Your task to perform on an android device: Search for amazon basics triple a on walmart, select the first entry, and add it to the cart. Image 0: 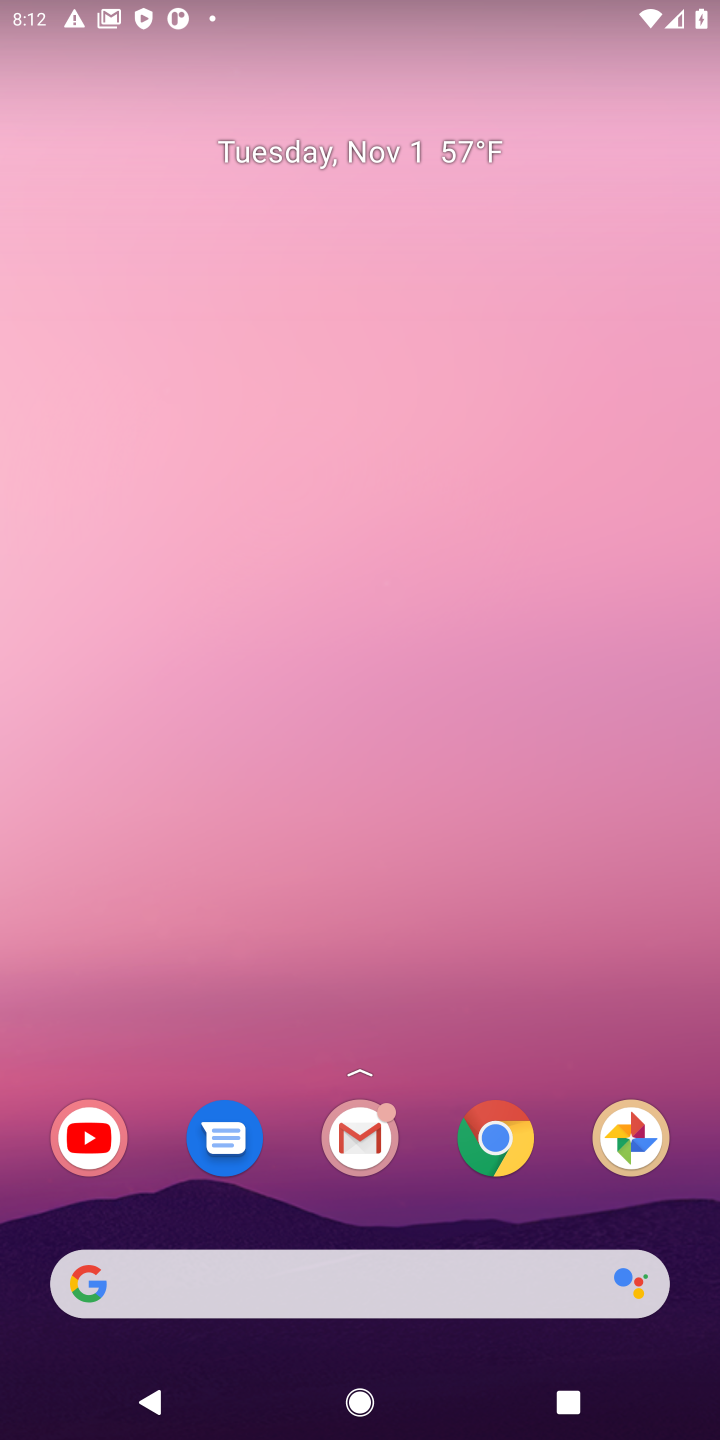
Step 0: click (504, 1133)
Your task to perform on an android device: Search for amazon basics triple a on walmart, select the first entry, and add it to the cart. Image 1: 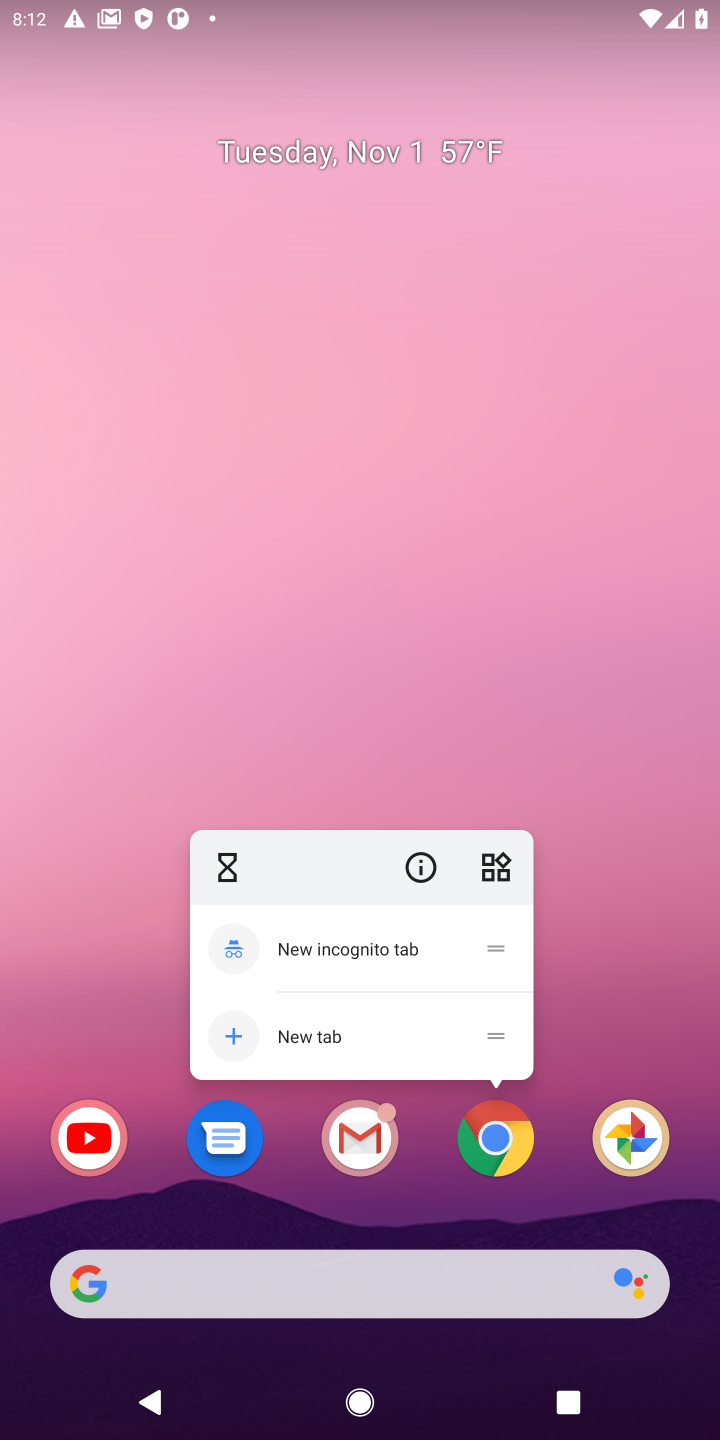
Step 1: click (506, 1135)
Your task to perform on an android device: Search for amazon basics triple a on walmart, select the first entry, and add it to the cart. Image 2: 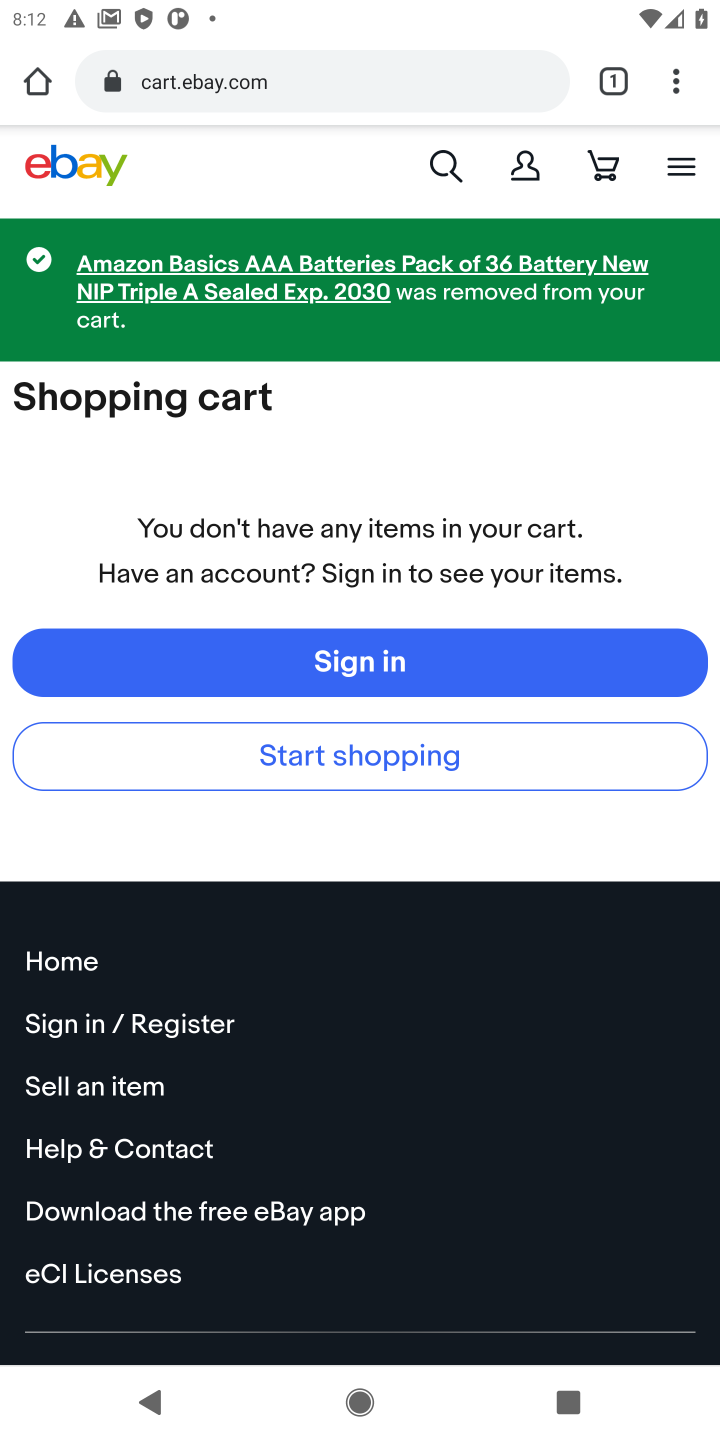
Step 2: click (272, 71)
Your task to perform on an android device: Search for amazon basics triple a on walmart, select the first entry, and add it to the cart. Image 3: 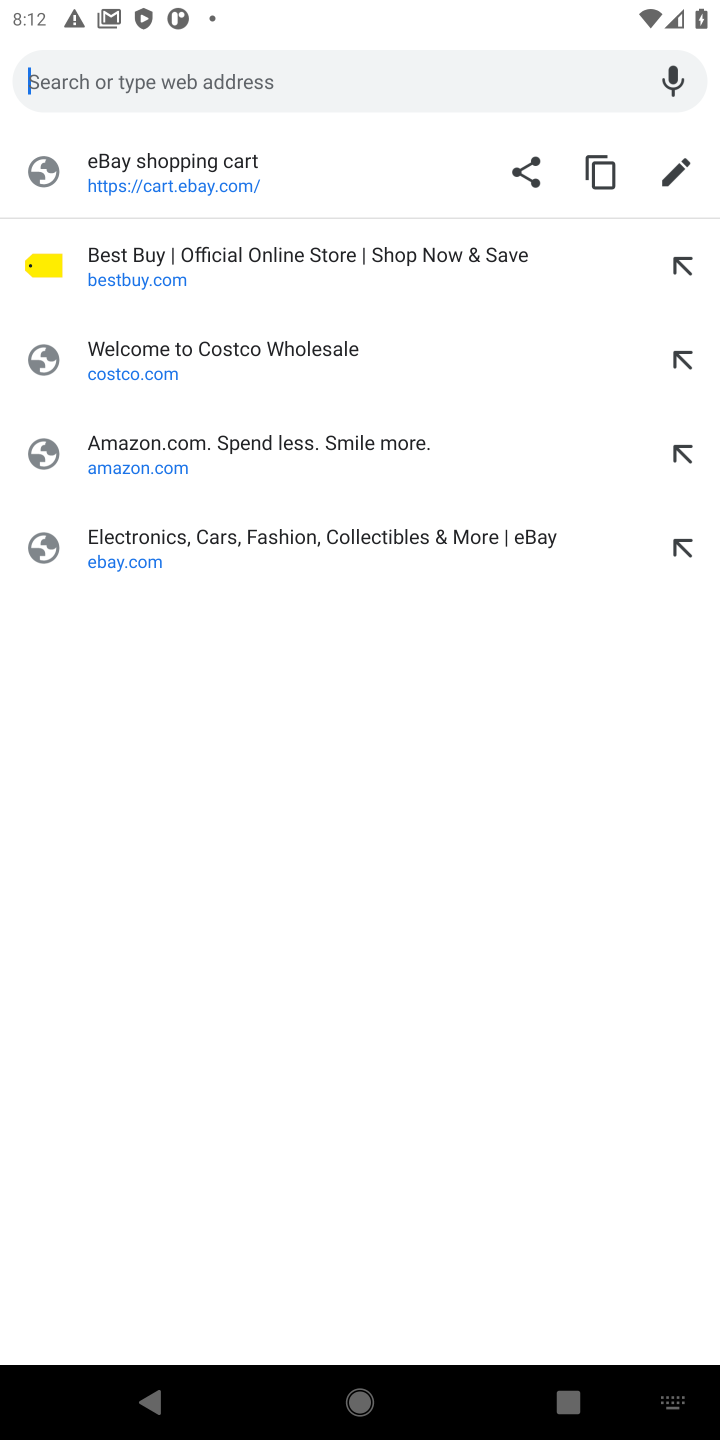
Step 3: type "walmart.com"
Your task to perform on an android device: Search for amazon basics triple a on walmart, select the first entry, and add it to the cart. Image 4: 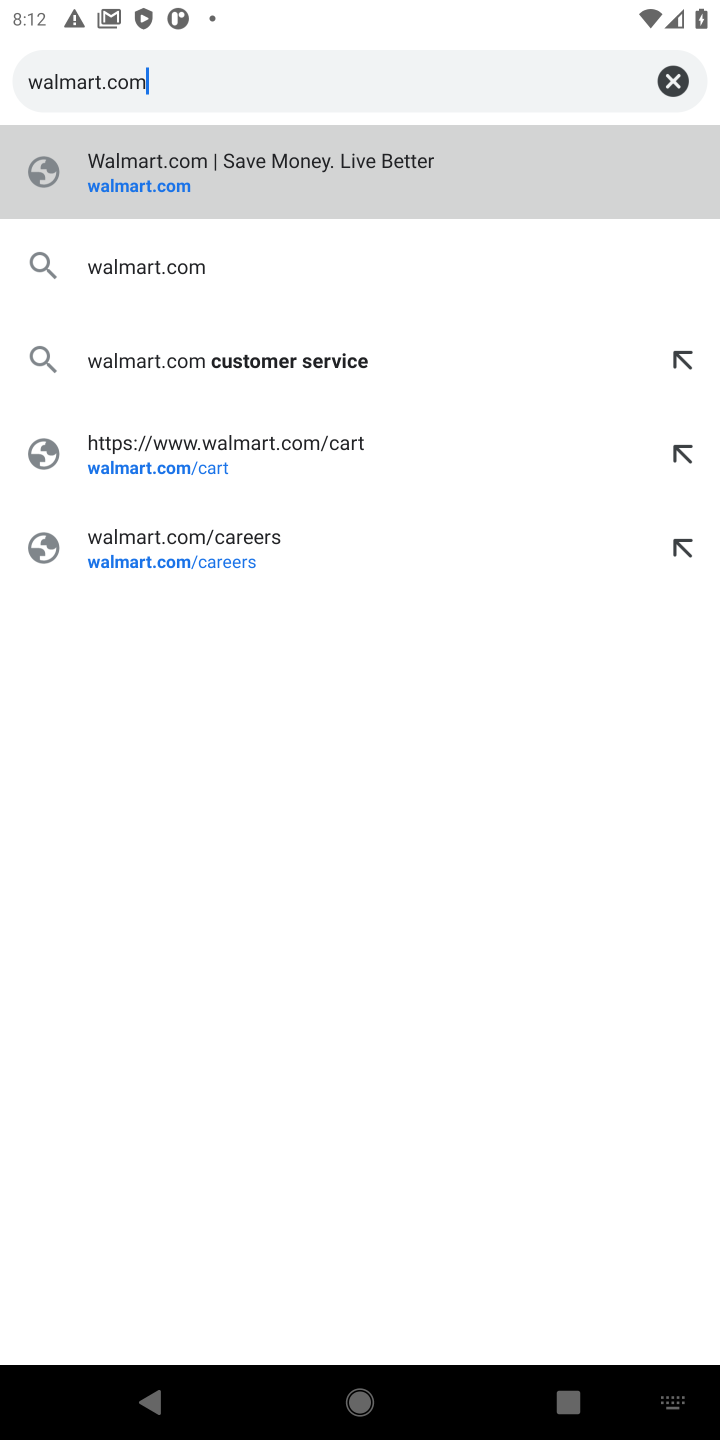
Step 4: click (142, 207)
Your task to perform on an android device: Search for amazon basics triple a on walmart, select the first entry, and add it to the cart. Image 5: 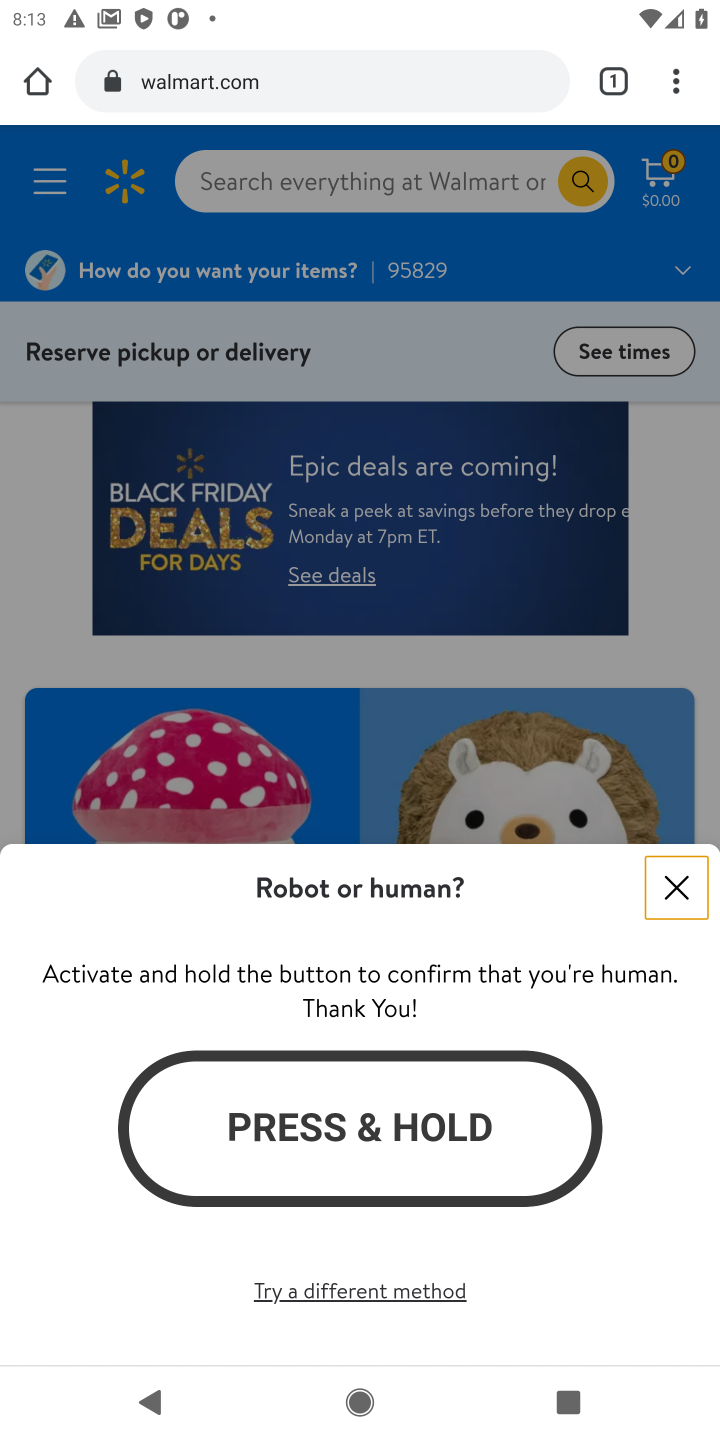
Step 5: click (371, 183)
Your task to perform on an android device: Search for amazon basics triple a on walmart, select the first entry, and add it to the cart. Image 6: 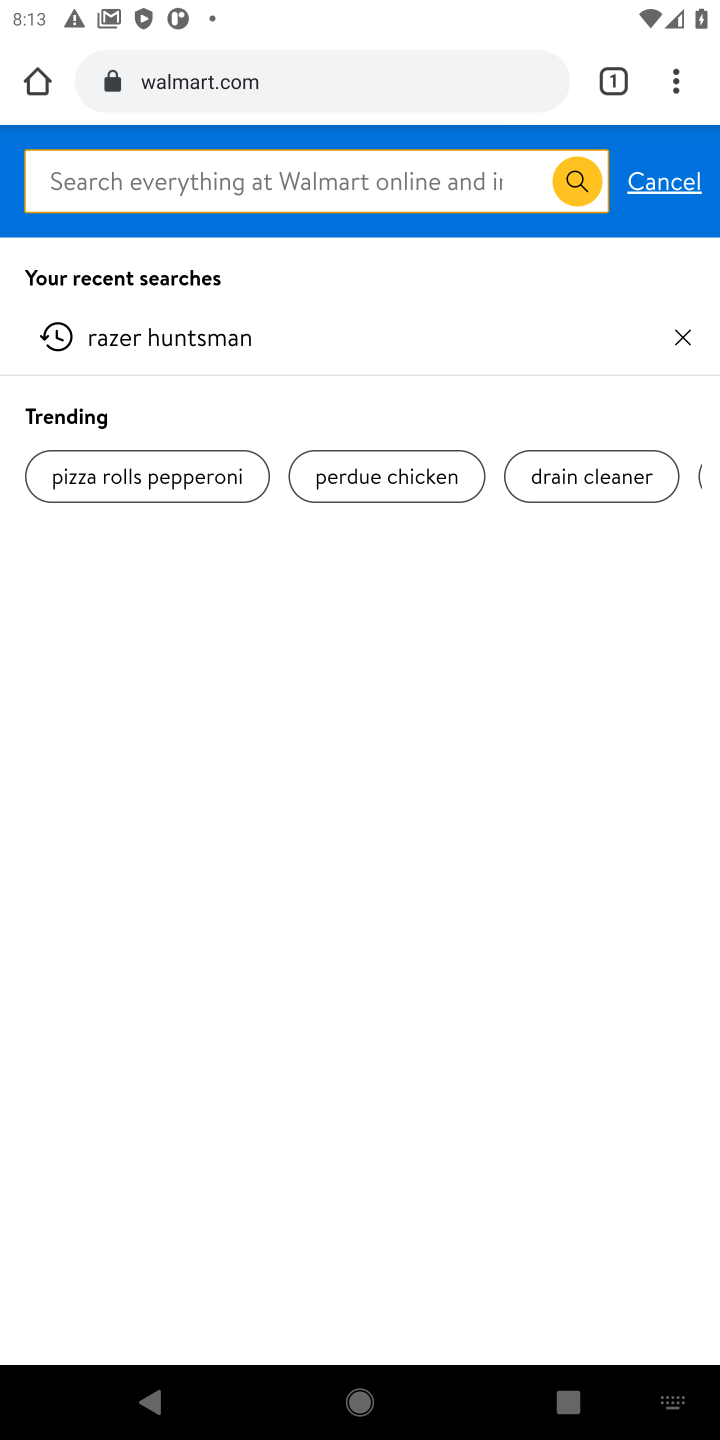
Step 6: type "amazon basics triple a"
Your task to perform on an android device: Search for amazon basics triple a on walmart, select the first entry, and add it to the cart. Image 7: 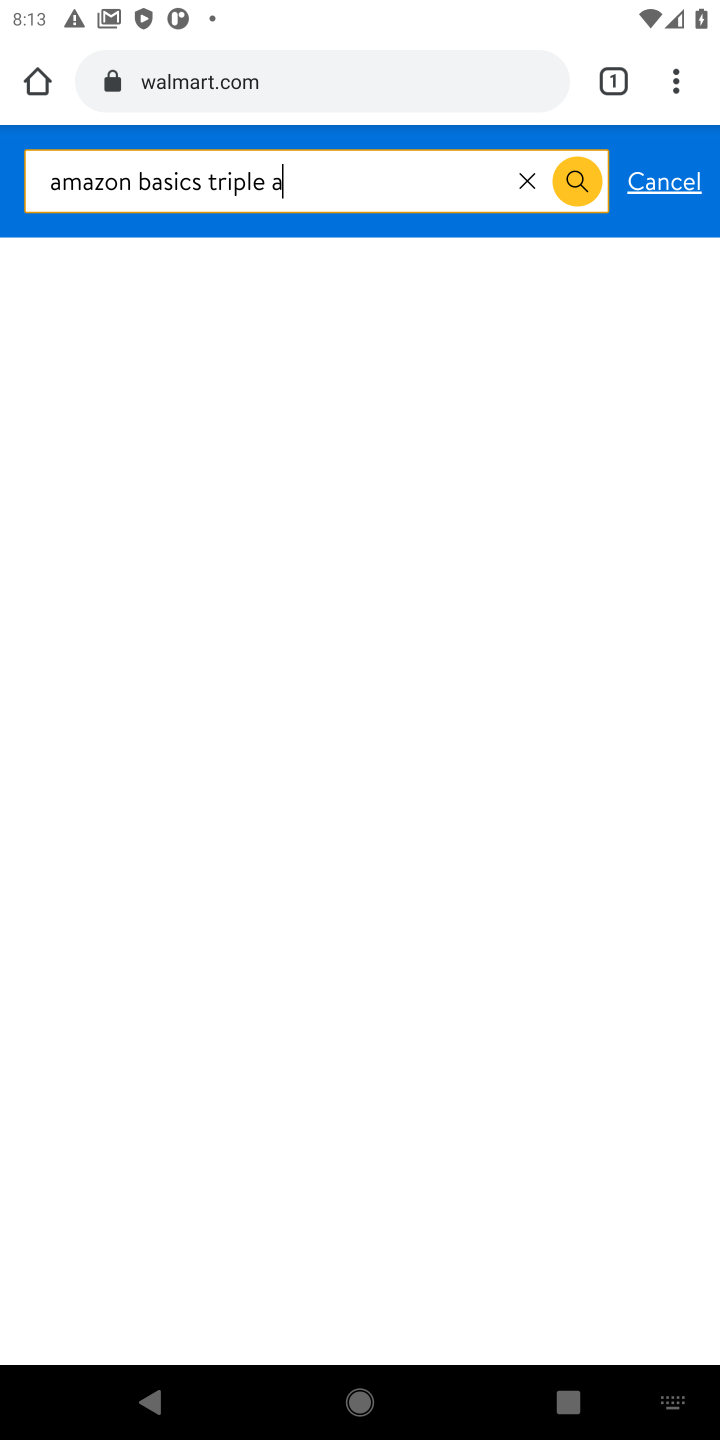
Step 7: click (580, 188)
Your task to perform on an android device: Search for amazon basics triple a on walmart, select the first entry, and add it to the cart. Image 8: 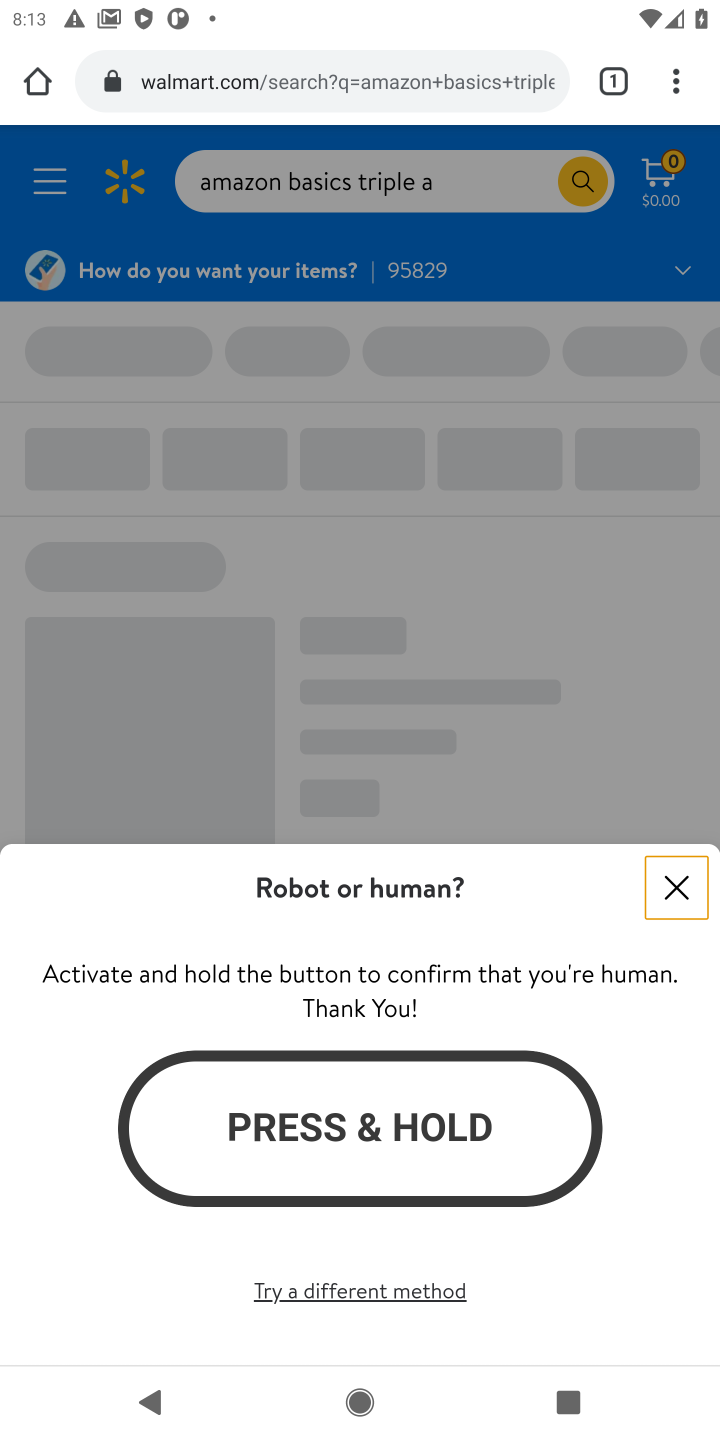
Step 8: click (680, 902)
Your task to perform on an android device: Search for amazon basics triple a on walmart, select the first entry, and add it to the cart. Image 9: 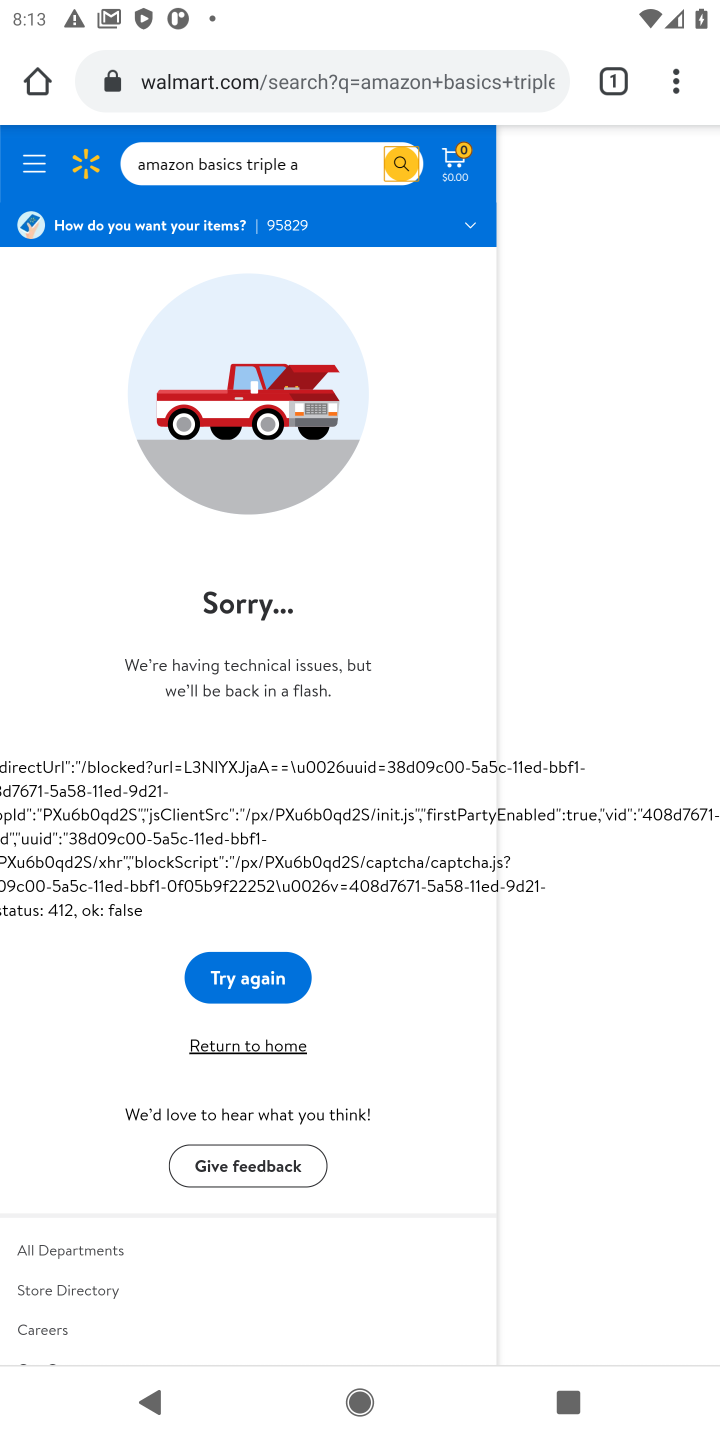
Step 9: click (225, 987)
Your task to perform on an android device: Search for amazon basics triple a on walmart, select the first entry, and add it to the cart. Image 10: 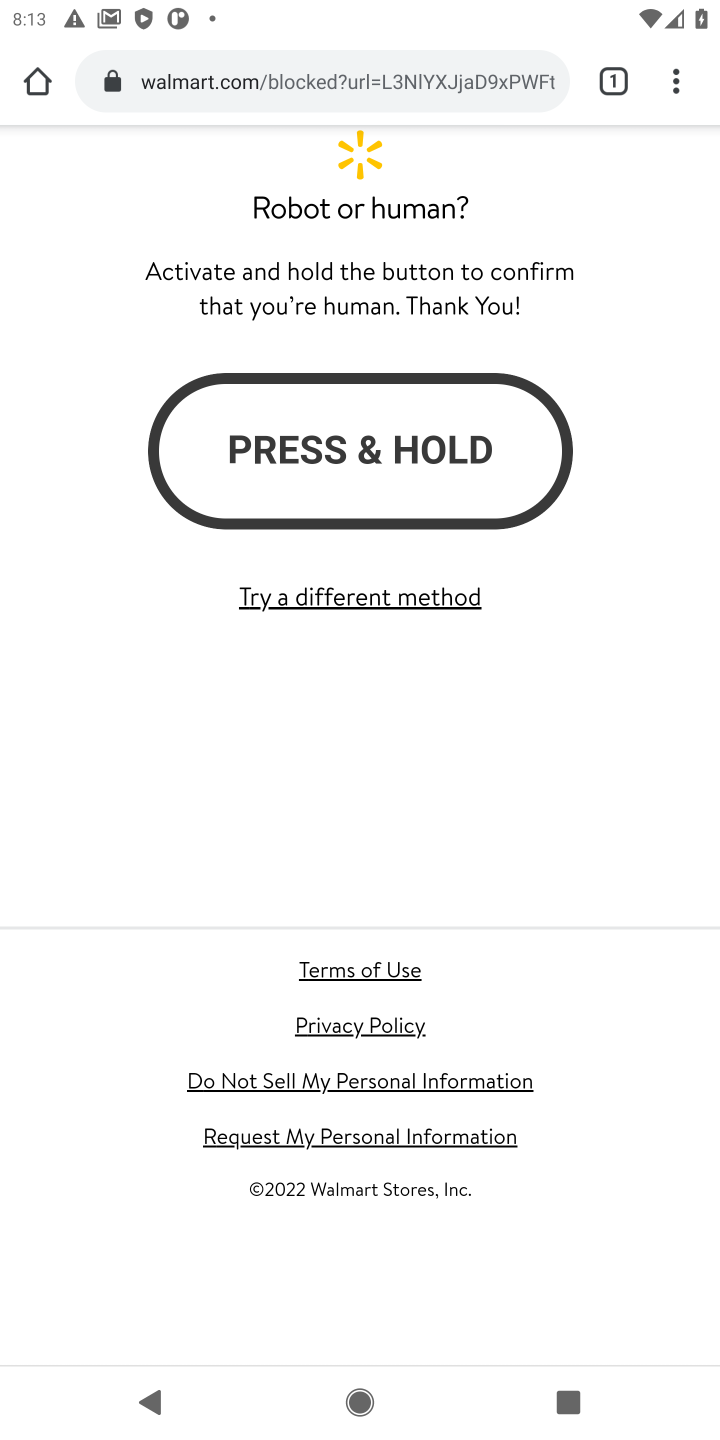
Step 10: click (324, 460)
Your task to perform on an android device: Search for amazon basics triple a on walmart, select the first entry, and add it to the cart. Image 11: 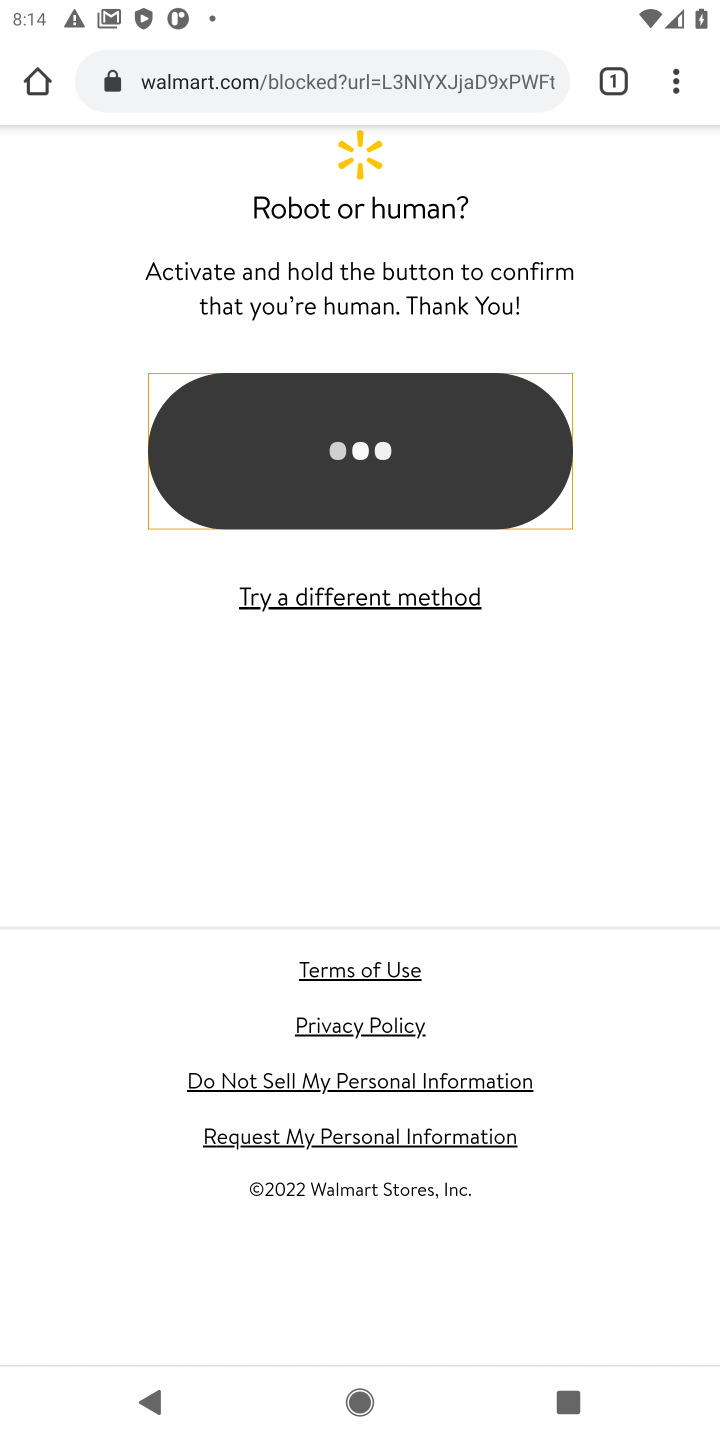
Step 11: task complete